Your task to perform on an android device: Go to Reddit.com Image 0: 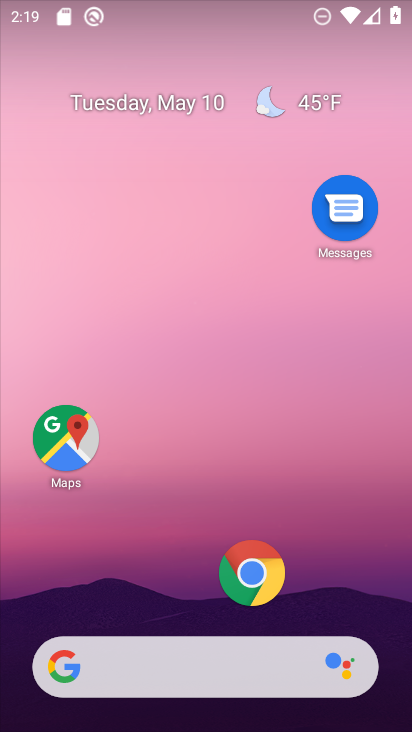
Step 0: drag from (187, 627) to (226, 255)
Your task to perform on an android device: Go to Reddit.com Image 1: 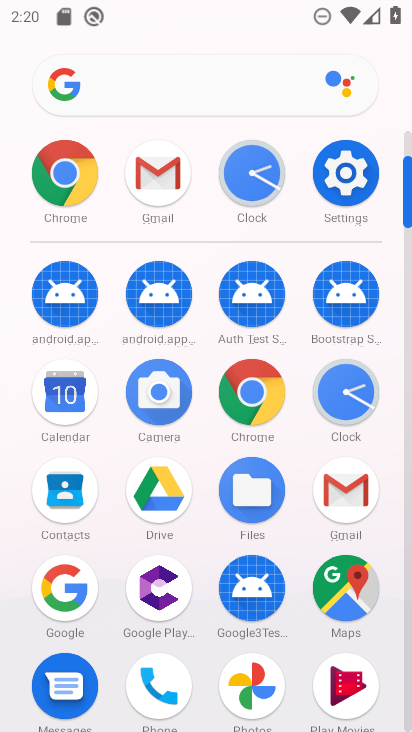
Step 1: drag from (200, 648) to (282, 165)
Your task to perform on an android device: Go to Reddit.com Image 2: 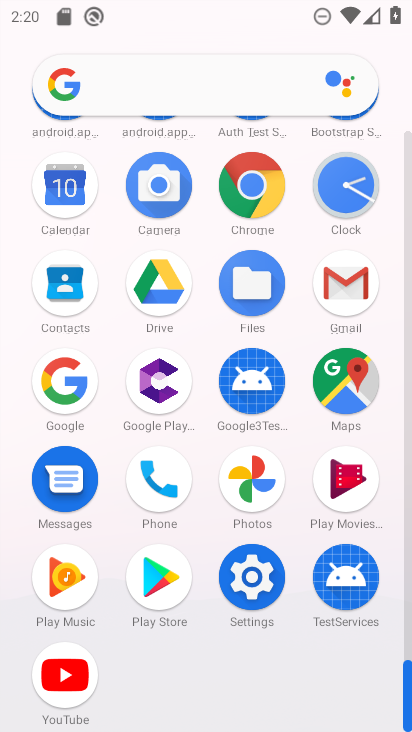
Step 2: click (230, 103)
Your task to perform on an android device: Go to Reddit.com Image 3: 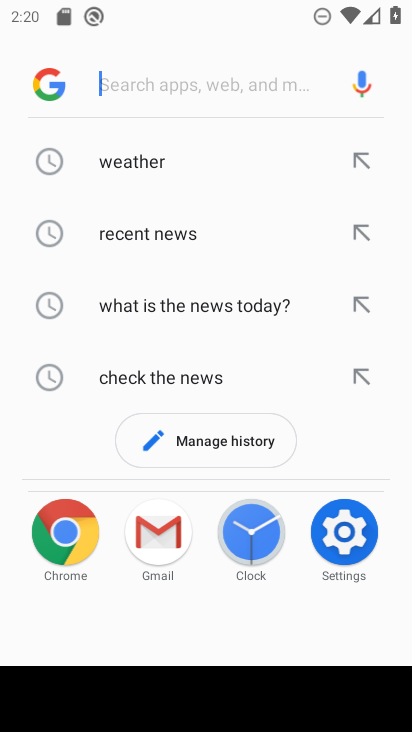
Step 3: type "reddit.com"
Your task to perform on an android device: Go to Reddit.com Image 4: 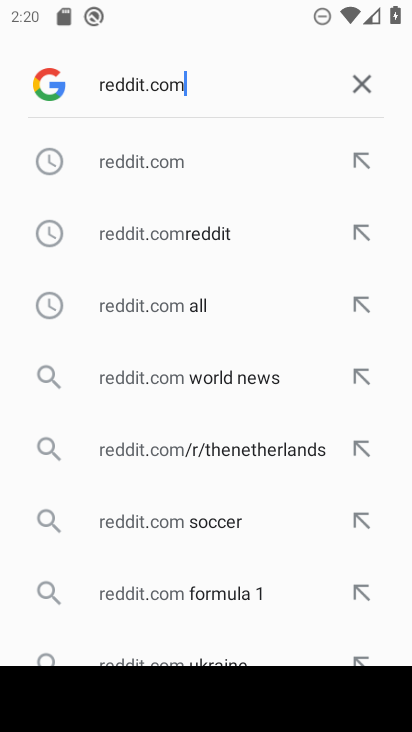
Step 4: click (212, 175)
Your task to perform on an android device: Go to Reddit.com Image 5: 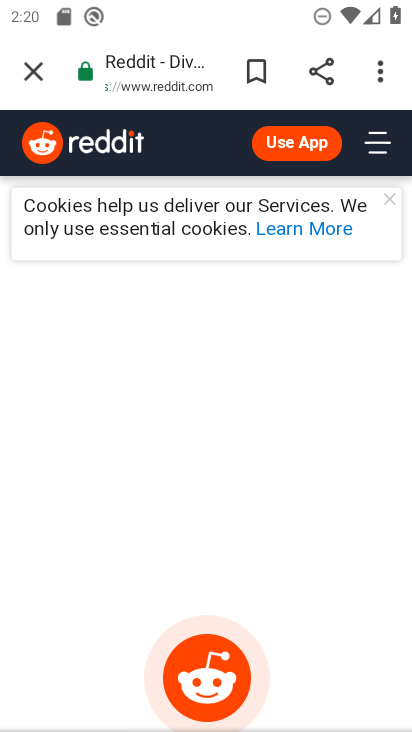
Step 5: task complete